Your task to perform on an android device: Open ESPN.com Image 0: 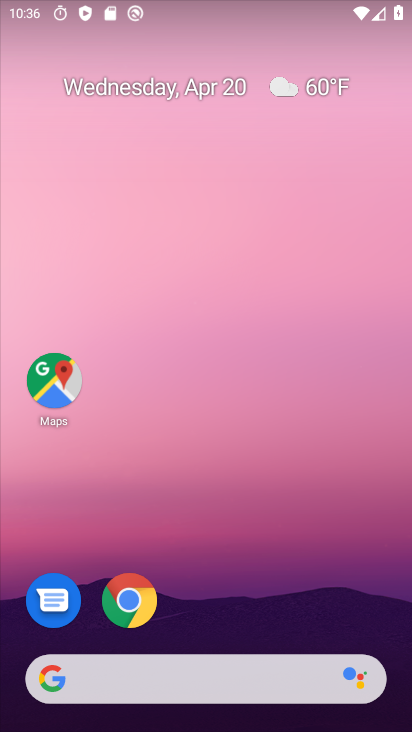
Step 0: click (128, 601)
Your task to perform on an android device: Open ESPN.com Image 1: 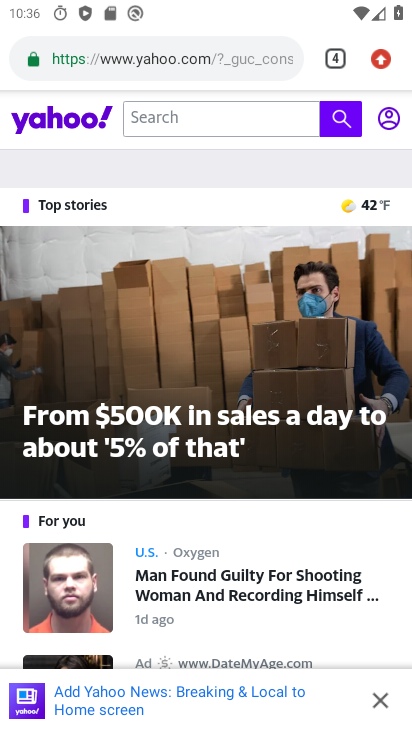
Step 1: click (340, 47)
Your task to perform on an android device: Open ESPN.com Image 2: 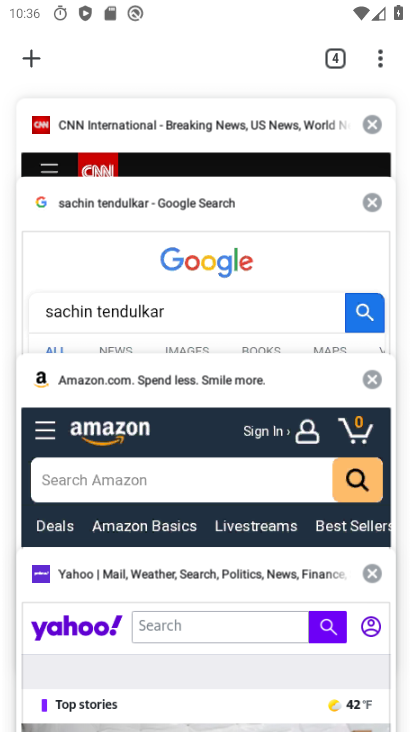
Step 2: click (39, 53)
Your task to perform on an android device: Open ESPN.com Image 3: 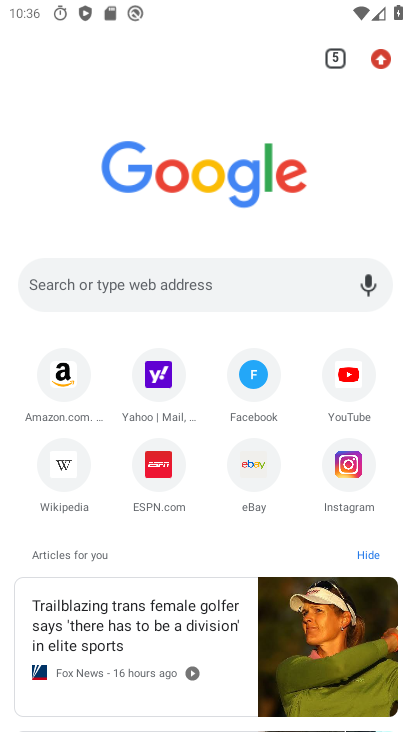
Step 3: click (162, 459)
Your task to perform on an android device: Open ESPN.com Image 4: 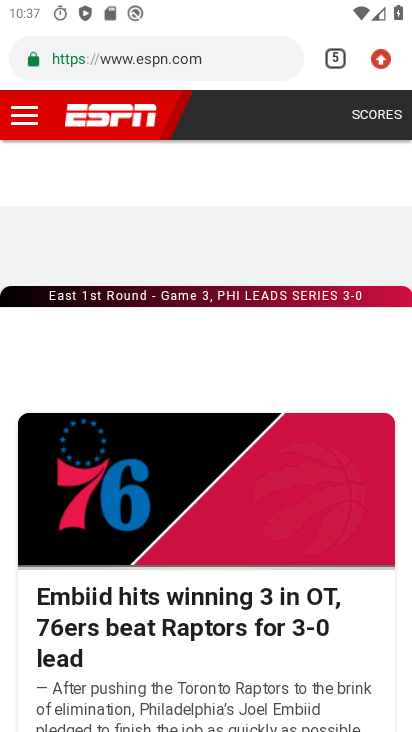
Step 4: task complete